Your task to perform on an android device: toggle translation in the chrome app Image 0: 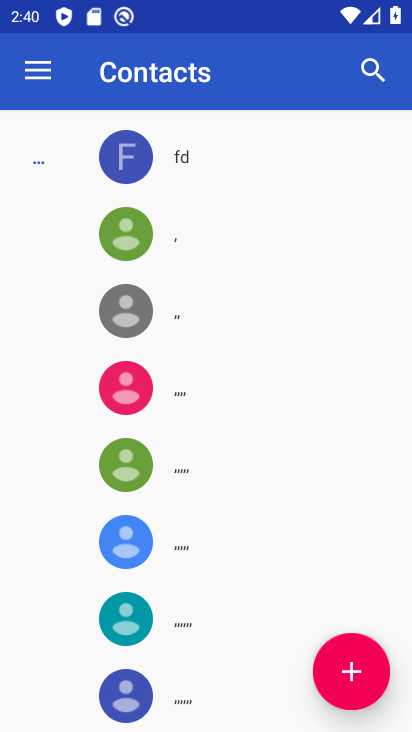
Step 0: press home button
Your task to perform on an android device: toggle translation in the chrome app Image 1: 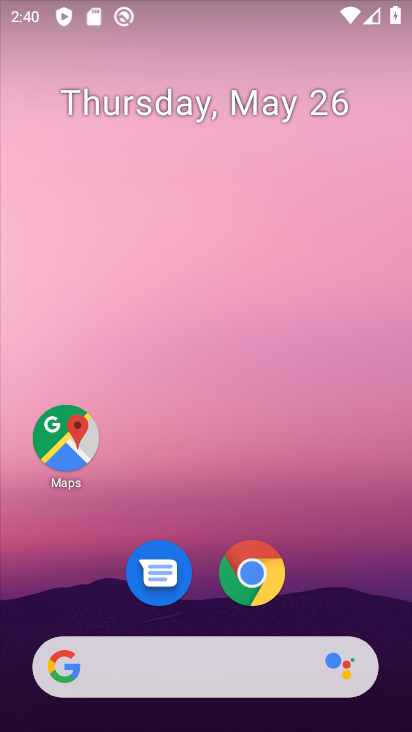
Step 1: click (241, 585)
Your task to perform on an android device: toggle translation in the chrome app Image 2: 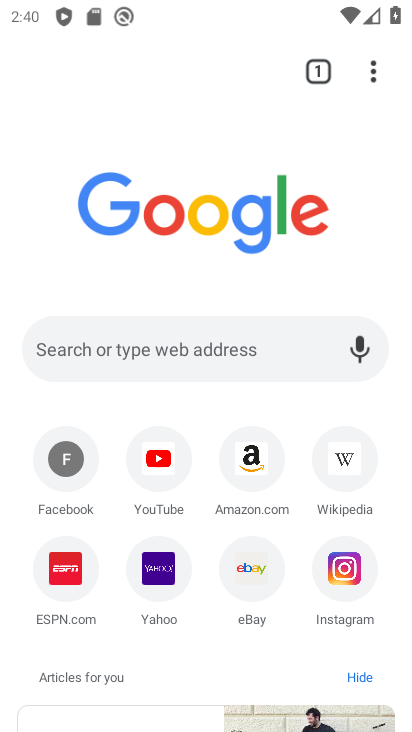
Step 2: click (381, 54)
Your task to perform on an android device: toggle translation in the chrome app Image 3: 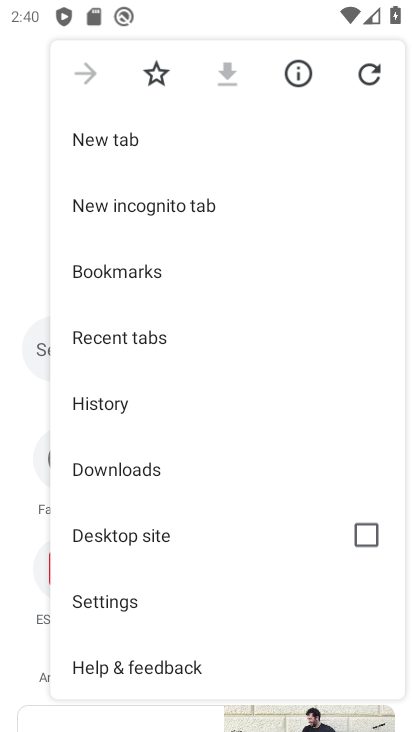
Step 3: click (136, 594)
Your task to perform on an android device: toggle translation in the chrome app Image 4: 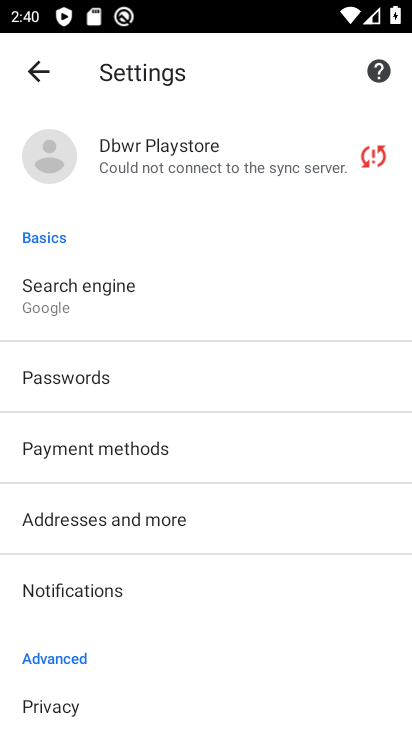
Step 4: drag from (178, 584) to (333, 229)
Your task to perform on an android device: toggle translation in the chrome app Image 5: 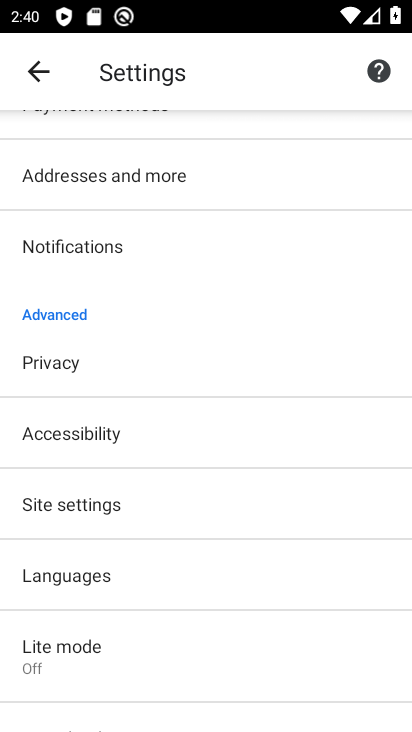
Step 5: click (110, 573)
Your task to perform on an android device: toggle translation in the chrome app Image 6: 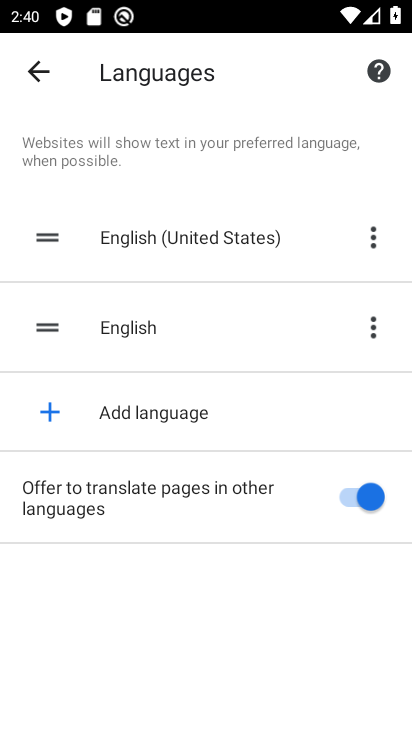
Step 6: click (367, 505)
Your task to perform on an android device: toggle translation in the chrome app Image 7: 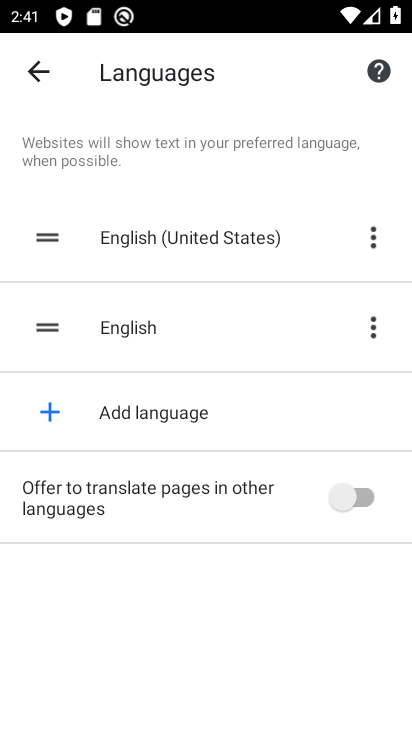
Step 7: task complete